Your task to perform on an android device: toggle wifi Image 0: 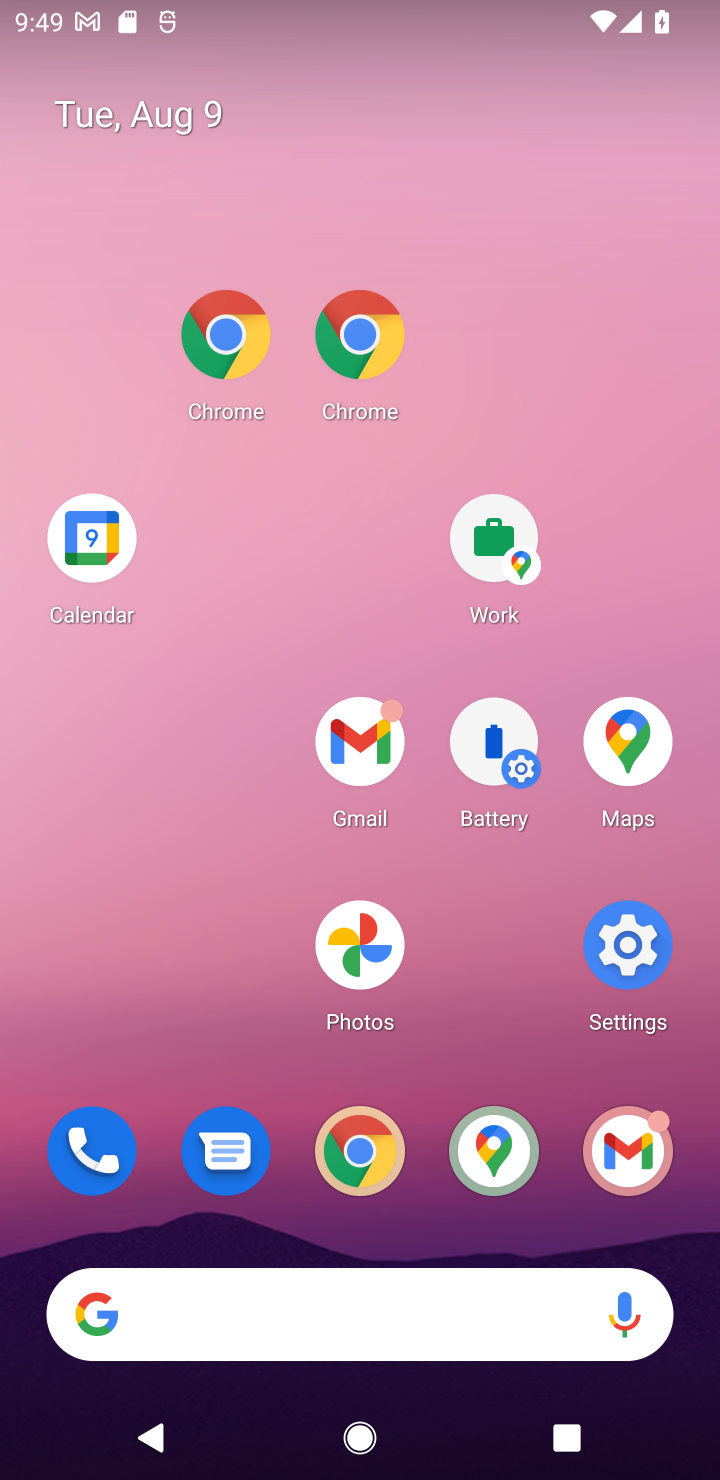
Step 0: drag from (357, 1056) to (148, 12)
Your task to perform on an android device: toggle wifi Image 1: 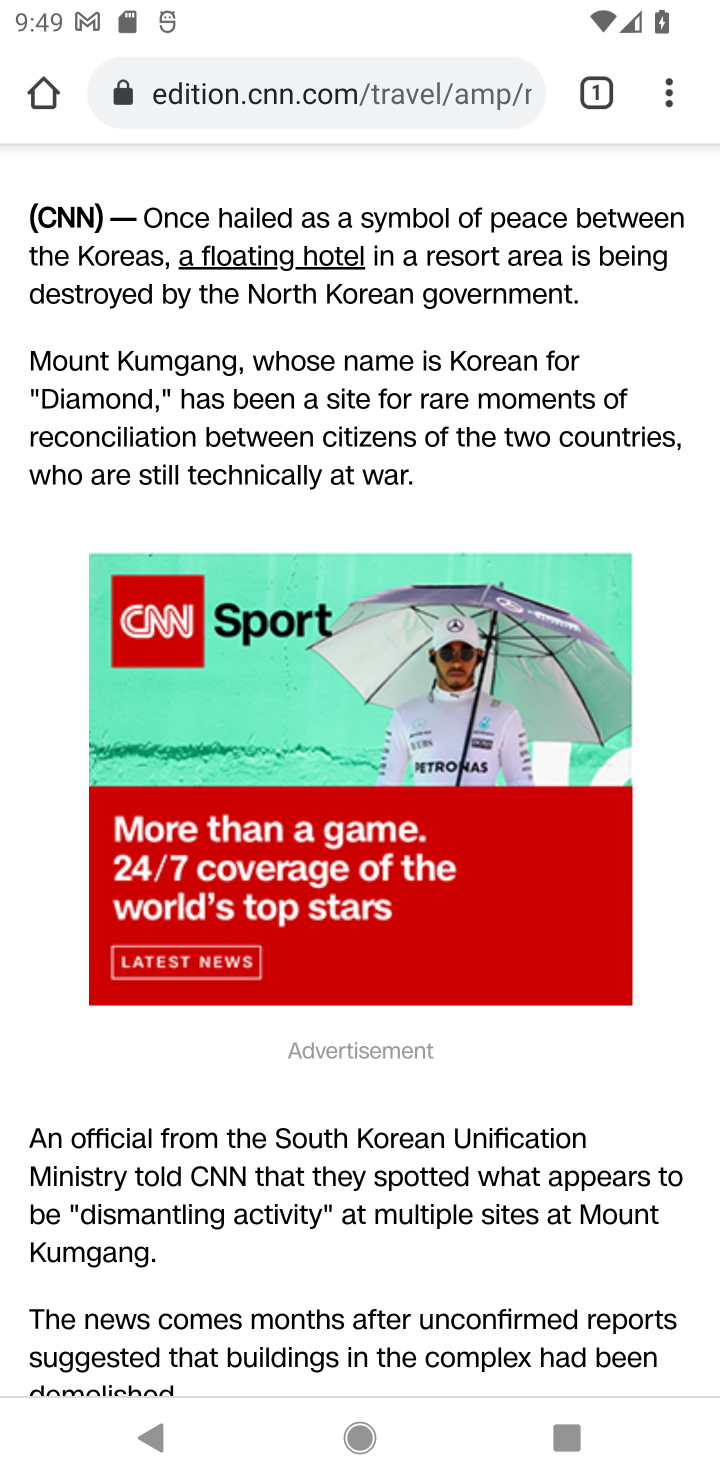
Step 1: press back button
Your task to perform on an android device: toggle wifi Image 2: 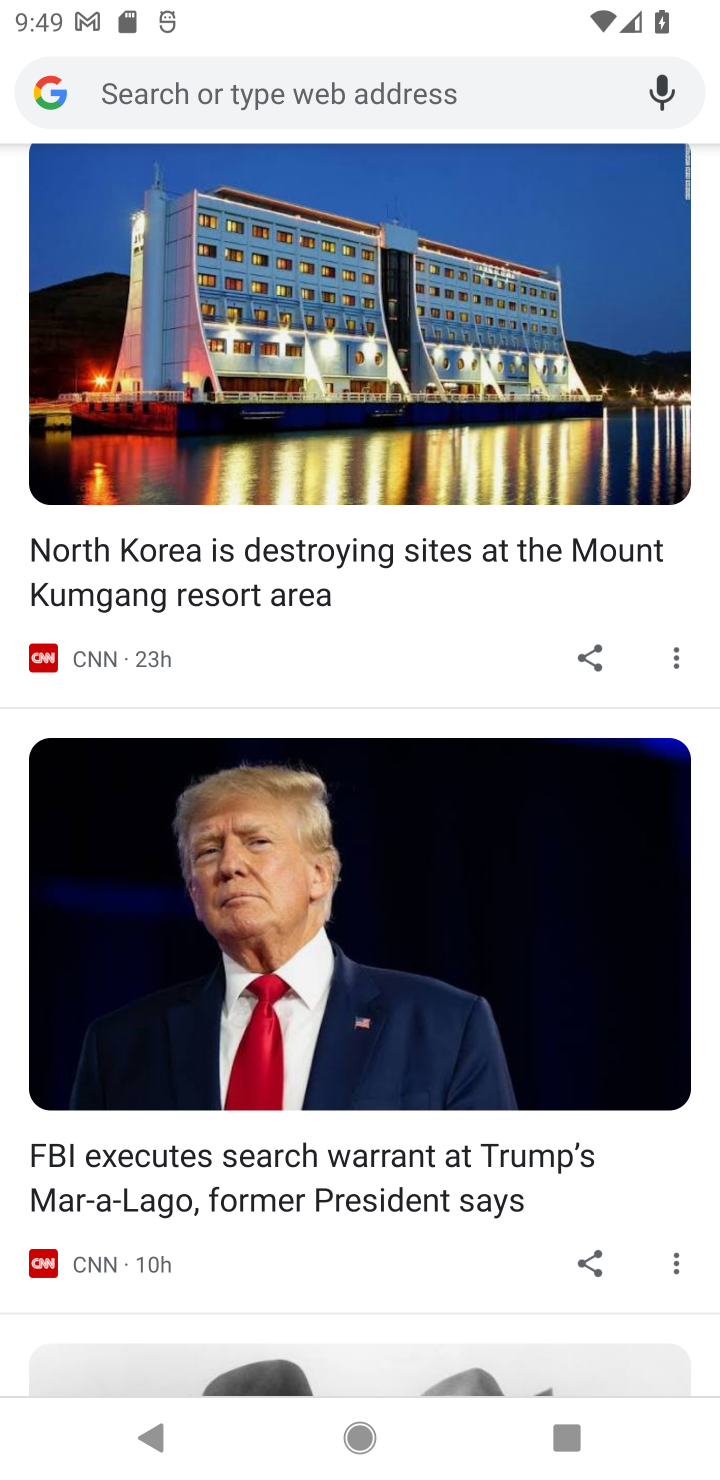
Step 2: press back button
Your task to perform on an android device: toggle wifi Image 3: 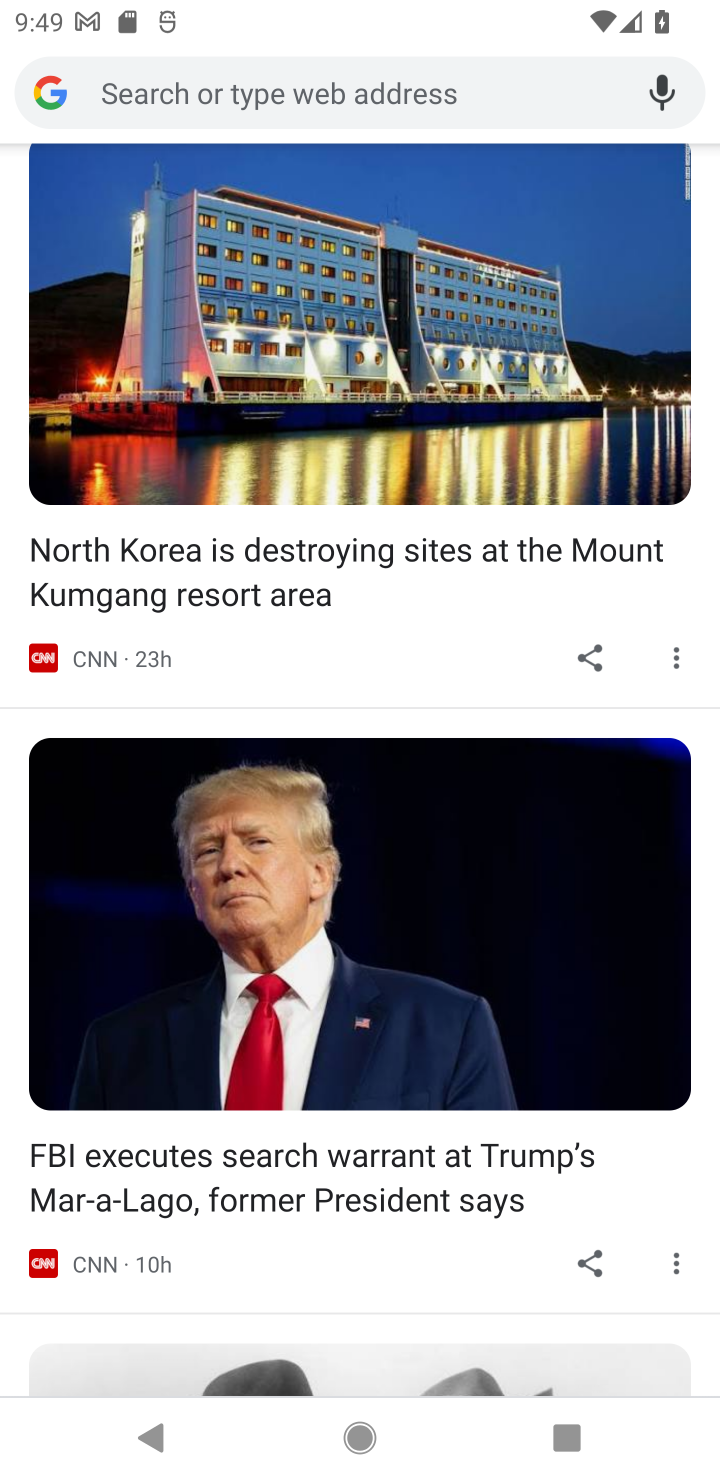
Step 3: press back button
Your task to perform on an android device: toggle wifi Image 4: 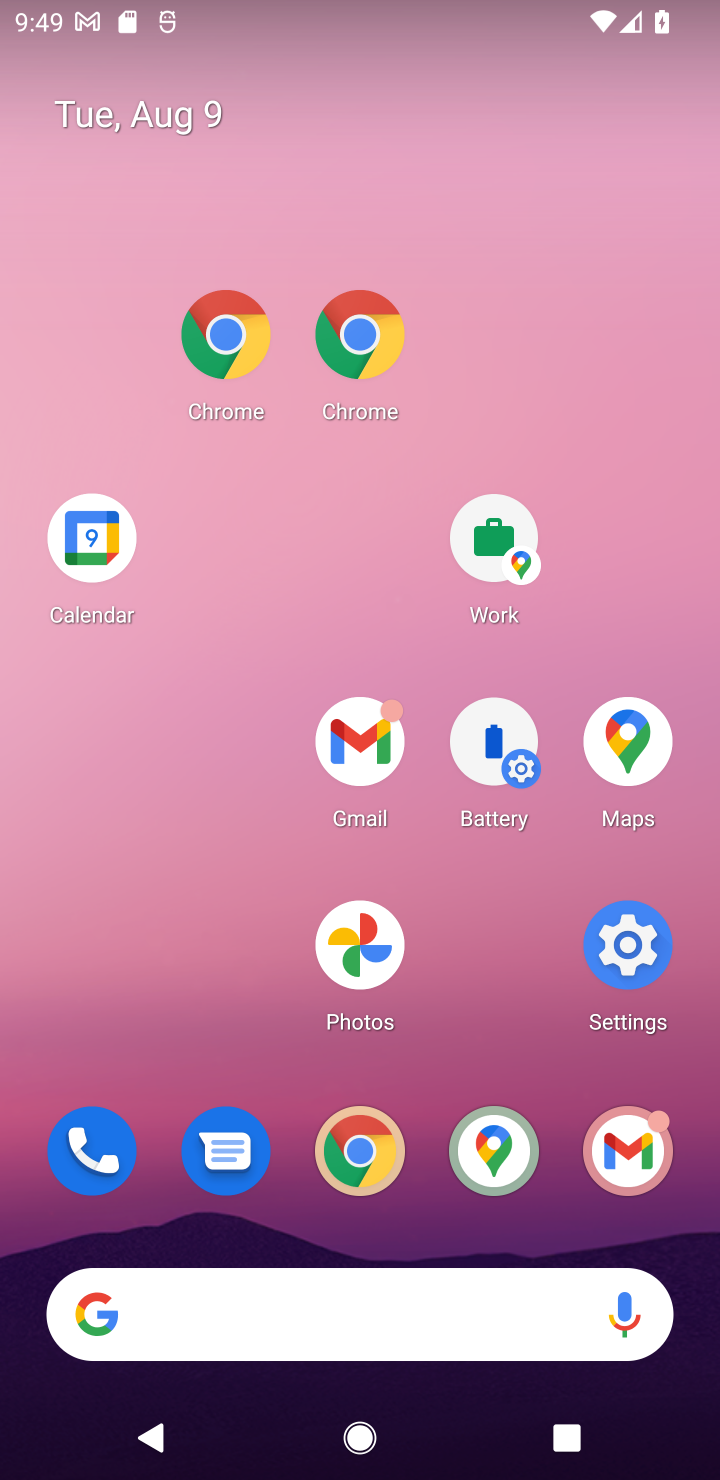
Step 4: drag from (281, 420) to (357, 276)
Your task to perform on an android device: toggle wifi Image 5: 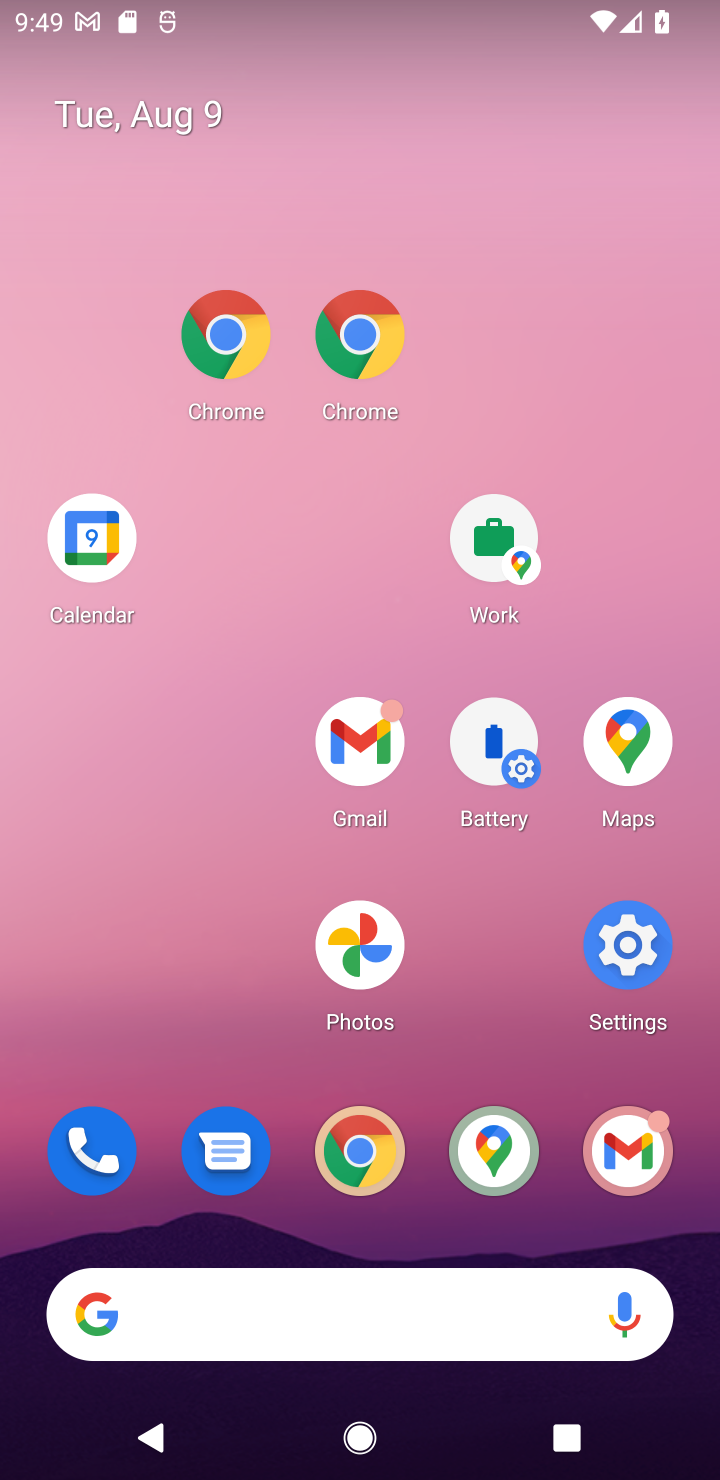
Step 5: click (642, 964)
Your task to perform on an android device: toggle wifi Image 6: 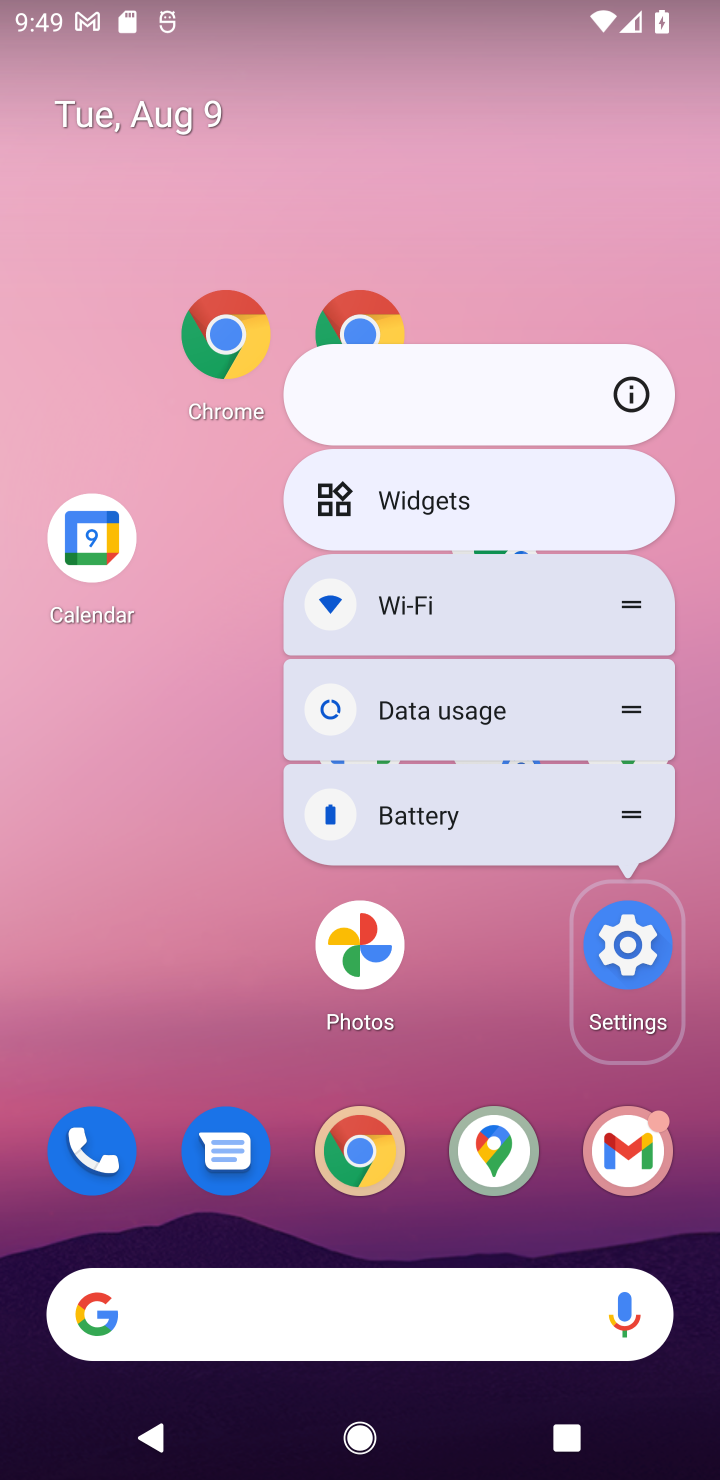
Step 6: click (614, 977)
Your task to perform on an android device: toggle wifi Image 7: 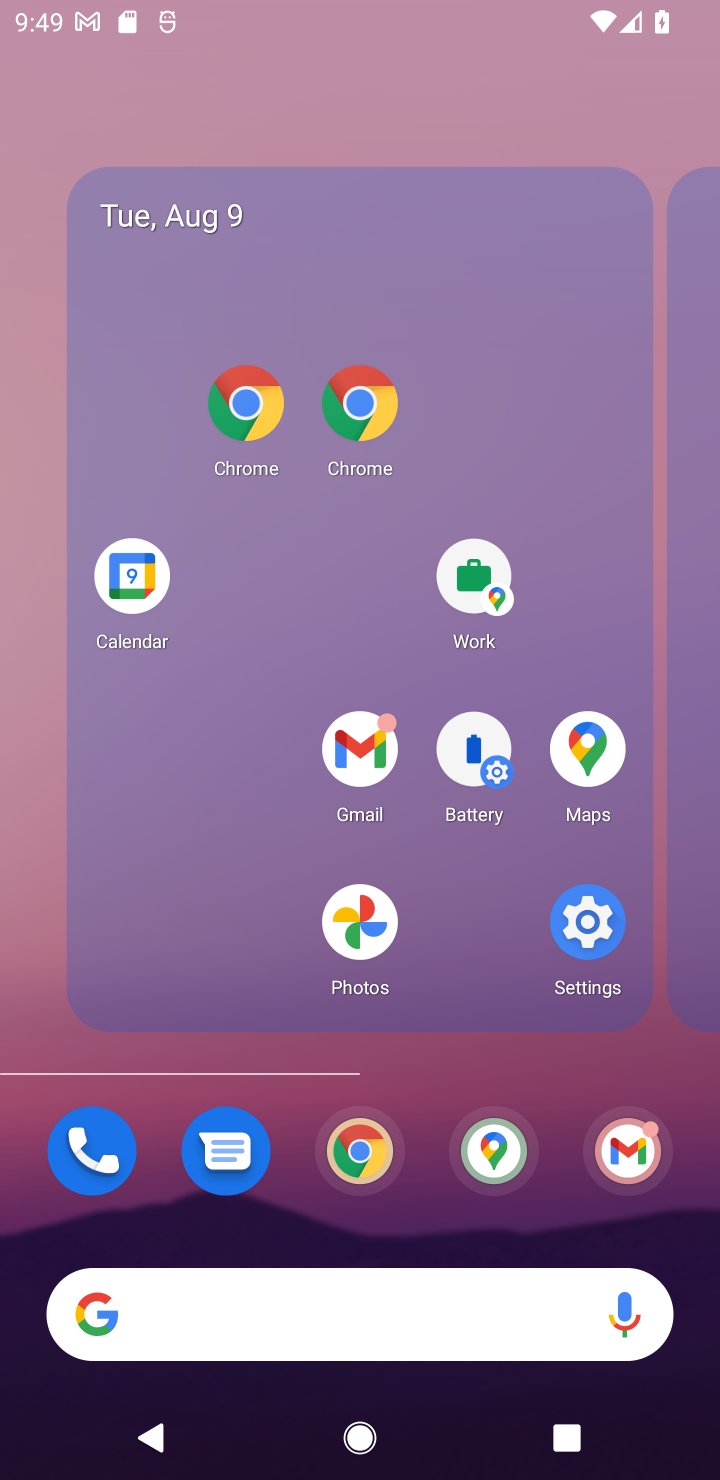
Step 7: click (638, 956)
Your task to perform on an android device: toggle wifi Image 8: 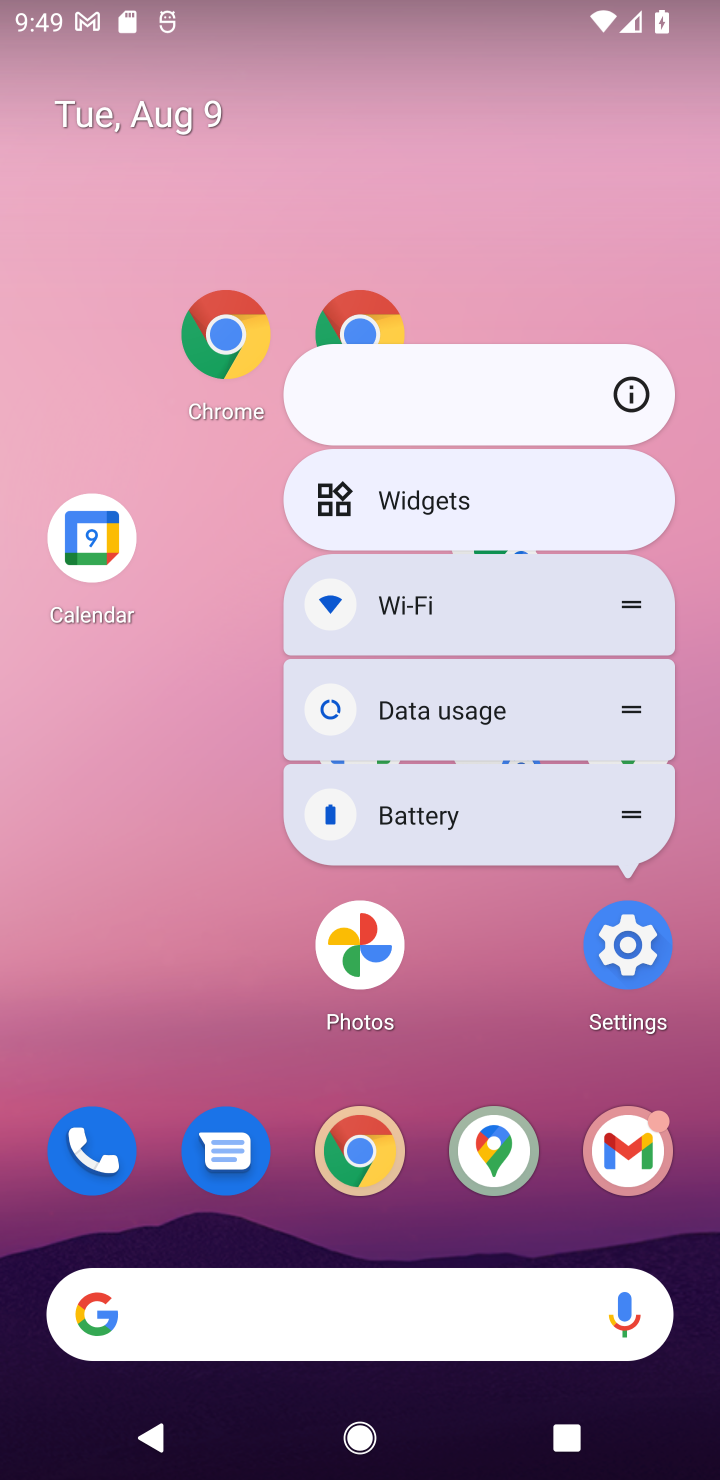
Step 8: click (446, 628)
Your task to perform on an android device: toggle wifi Image 9: 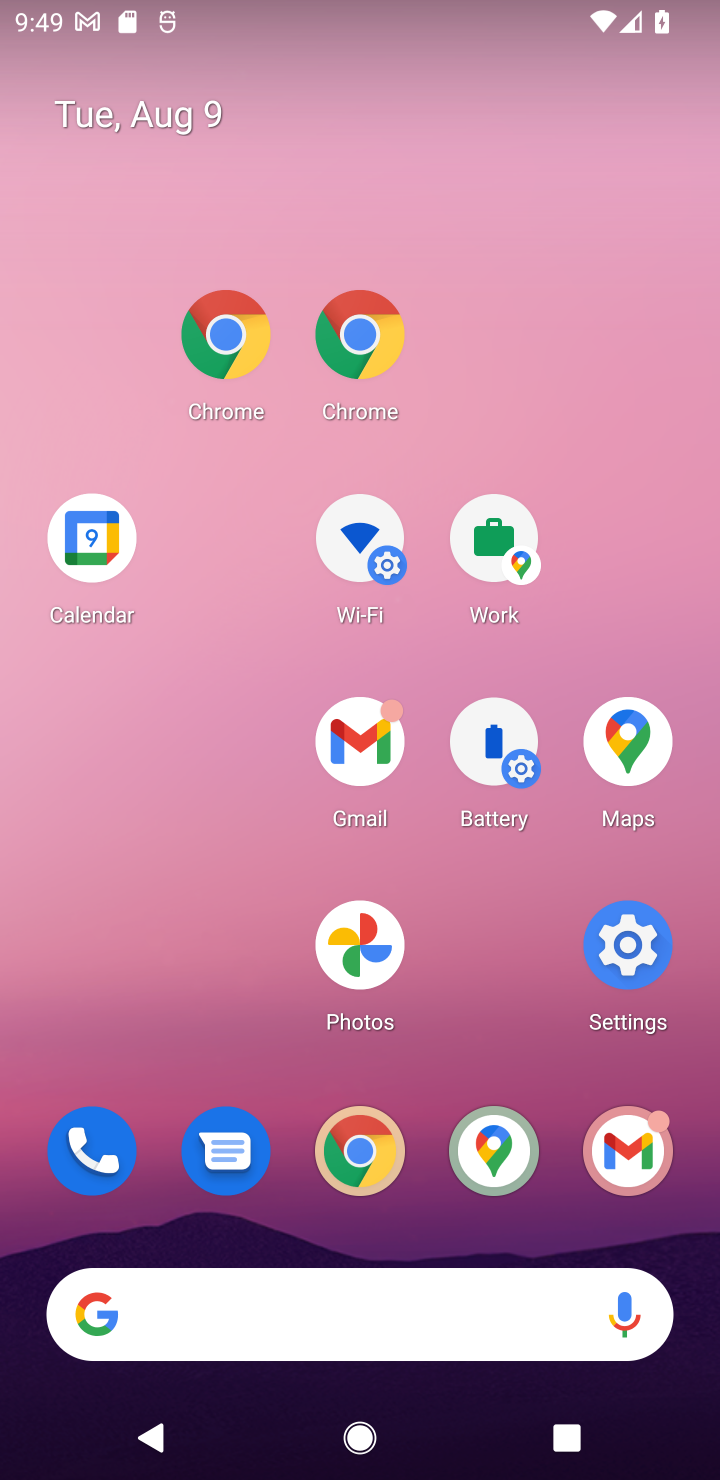
Step 9: task complete